Your task to perform on an android device: check google app version Image 0: 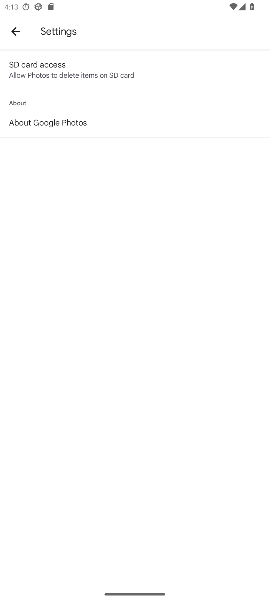
Step 0: press home button
Your task to perform on an android device: check google app version Image 1: 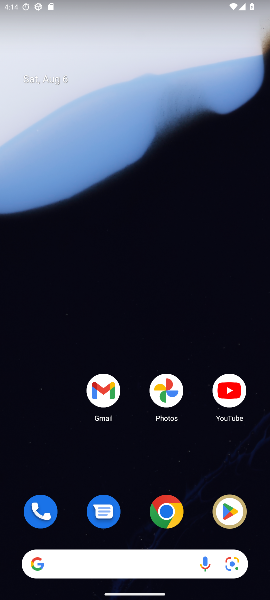
Step 1: click (37, 562)
Your task to perform on an android device: check google app version Image 2: 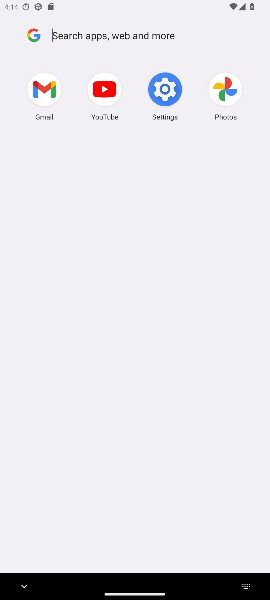
Step 2: click (29, 32)
Your task to perform on an android device: check google app version Image 3: 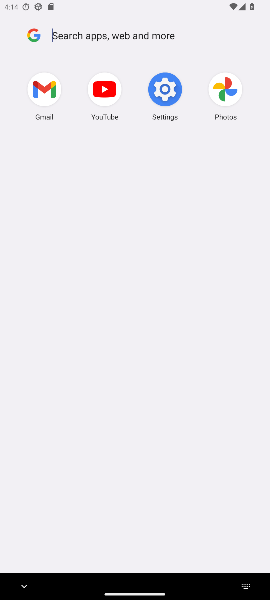
Step 3: click (29, 30)
Your task to perform on an android device: check google app version Image 4: 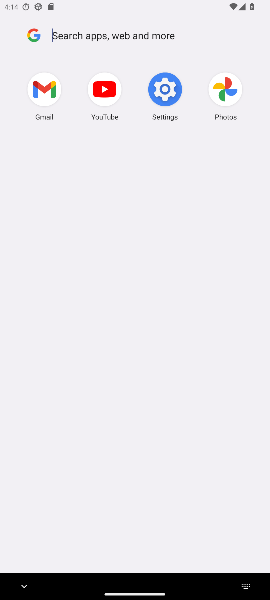
Step 4: type "google"
Your task to perform on an android device: check google app version Image 5: 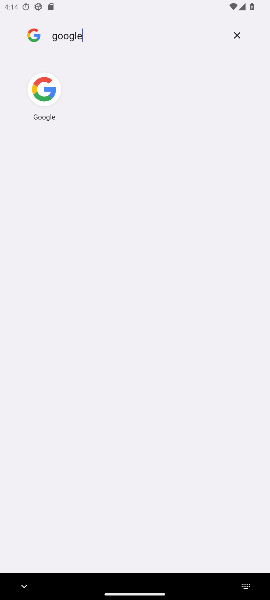
Step 5: click (48, 103)
Your task to perform on an android device: check google app version Image 6: 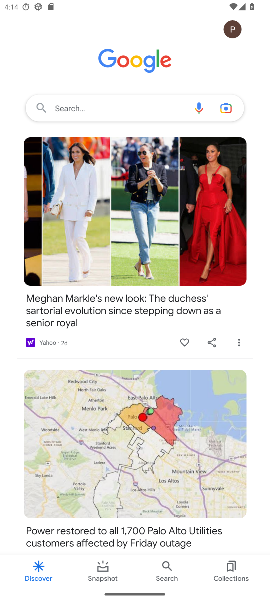
Step 6: click (231, 30)
Your task to perform on an android device: check google app version Image 7: 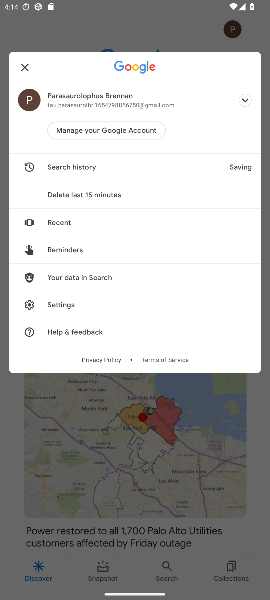
Step 7: click (58, 302)
Your task to perform on an android device: check google app version Image 8: 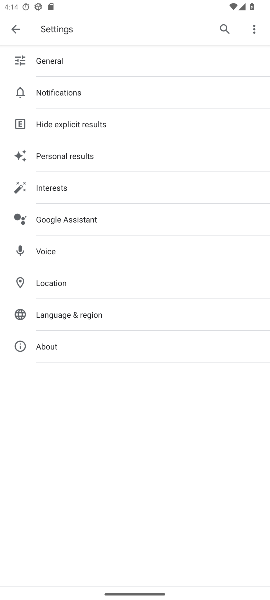
Step 8: click (42, 346)
Your task to perform on an android device: check google app version Image 9: 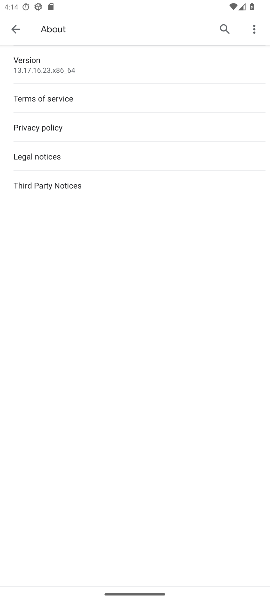
Step 9: task complete